Your task to perform on an android device: turn notification dots on Image 0: 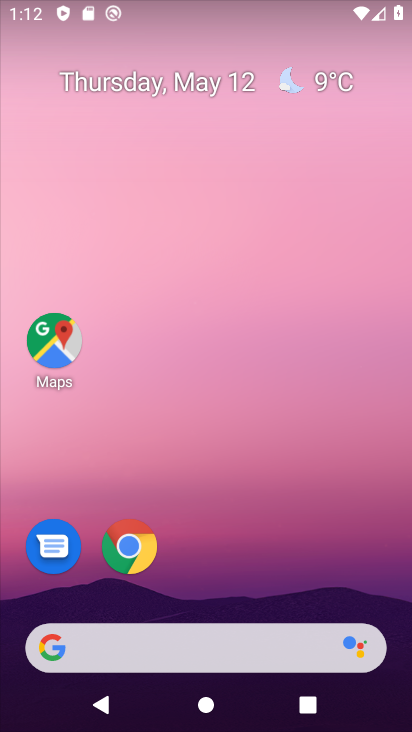
Step 0: drag from (233, 669) to (351, 234)
Your task to perform on an android device: turn notification dots on Image 1: 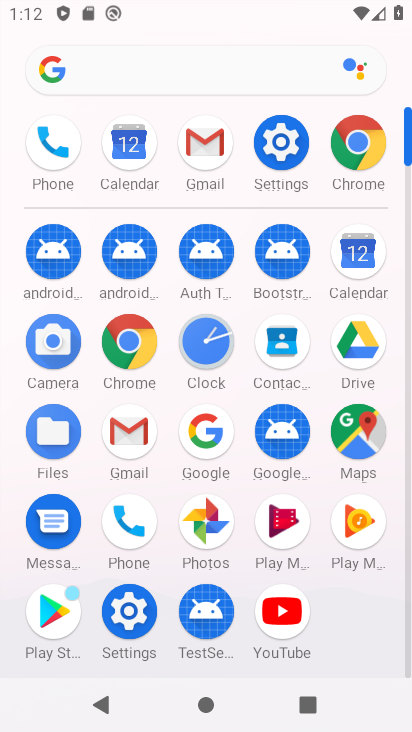
Step 1: click (129, 602)
Your task to perform on an android device: turn notification dots on Image 2: 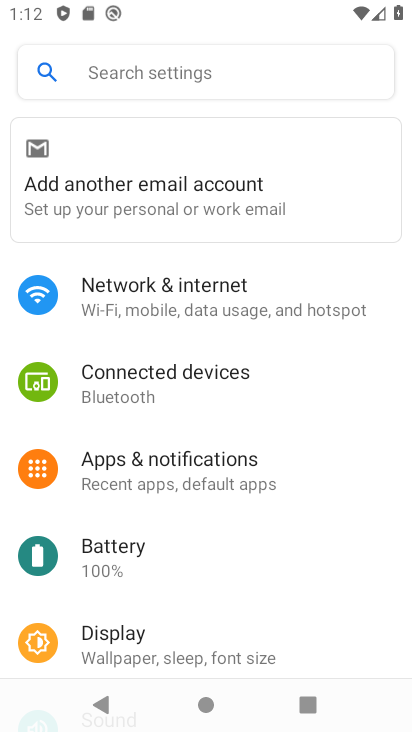
Step 2: click (166, 70)
Your task to perform on an android device: turn notification dots on Image 3: 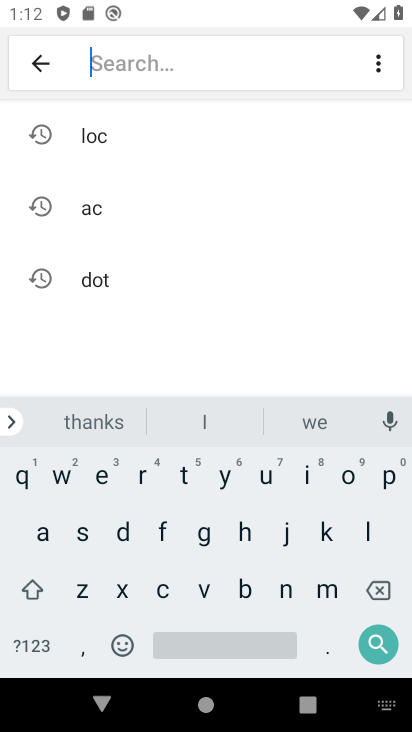
Step 3: click (121, 528)
Your task to perform on an android device: turn notification dots on Image 4: 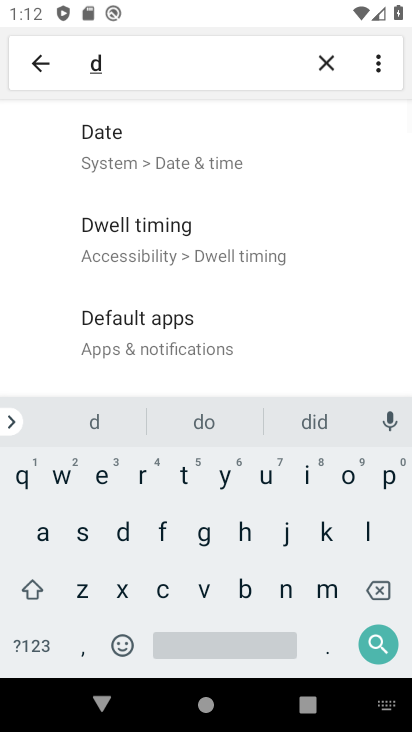
Step 4: click (339, 481)
Your task to perform on an android device: turn notification dots on Image 5: 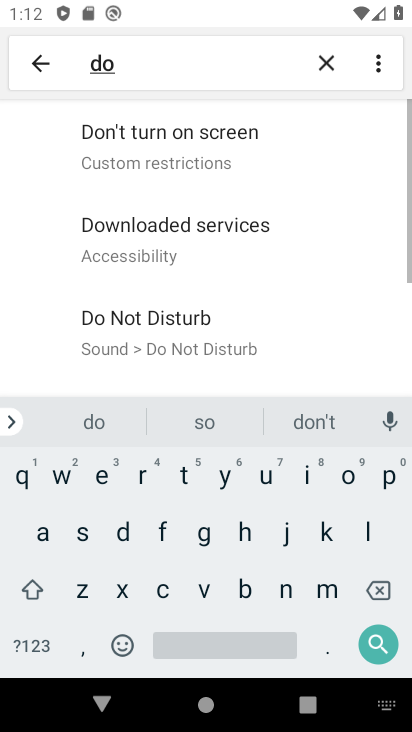
Step 5: click (188, 472)
Your task to perform on an android device: turn notification dots on Image 6: 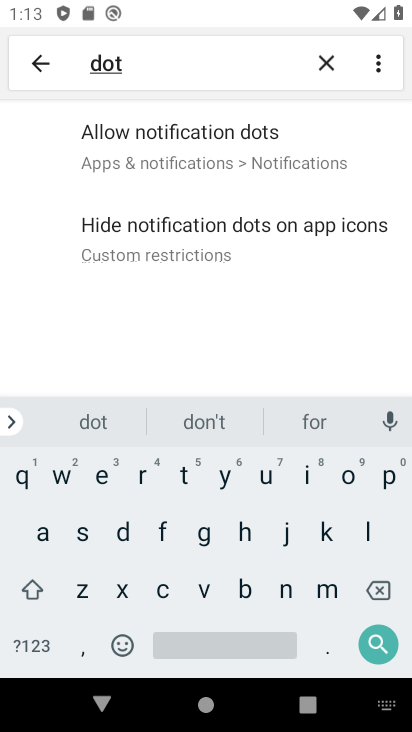
Step 6: click (256, 141)
Your task to perform on an android device: turn notification dots on Image 7: 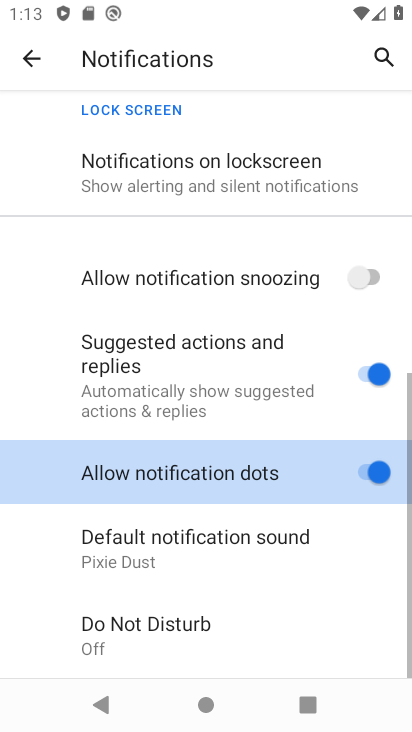
Step 7: task complete